Your task to perform on an android device: Search for vegetarian restaurants on Maps Image 0: 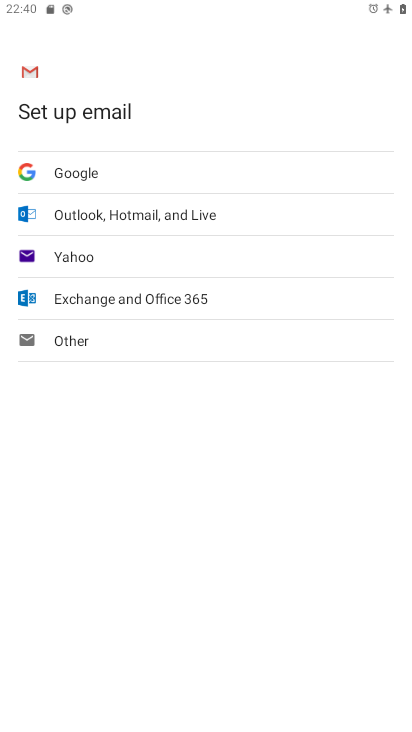
Step 0: press home button
Your task to perform on an android device: Search for vegetarian restaurants on Maps Image 1: 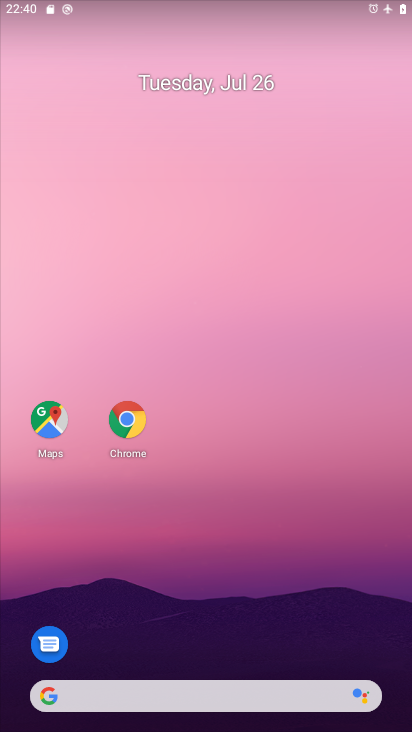
Step 1: click (128, 417)
Your task to perform on an android device: Search for vegetarian restaurants on Maps Image 2: 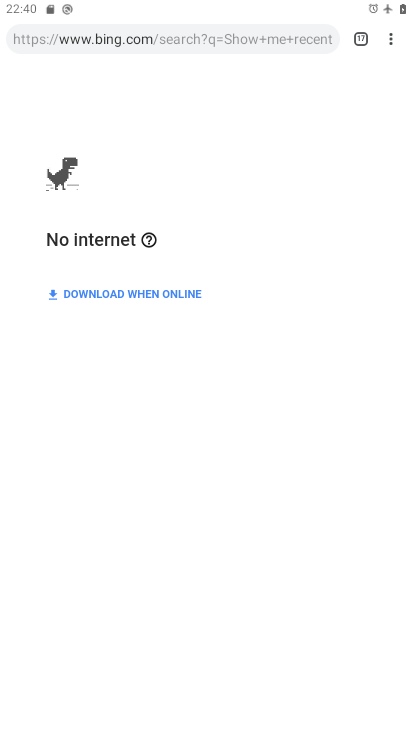
Step 2: press home button
Your task to perform on an android device: Search for vegetarian restaurants on Maps Image 3: 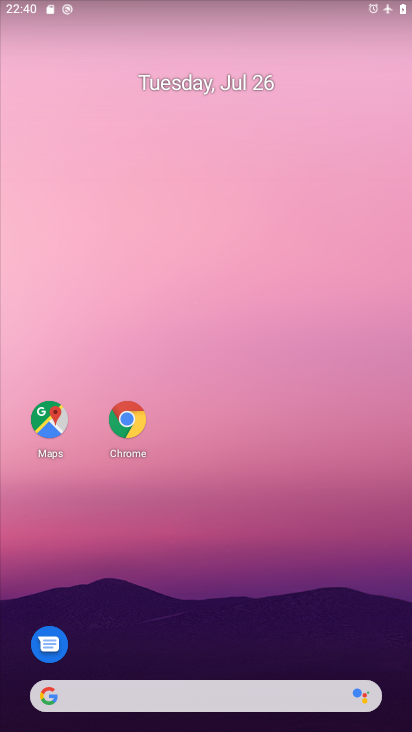
Step 3: click (43, 419)
Your task to perform on an android device: Search for vegetarian restaurants on Maps Image 4: 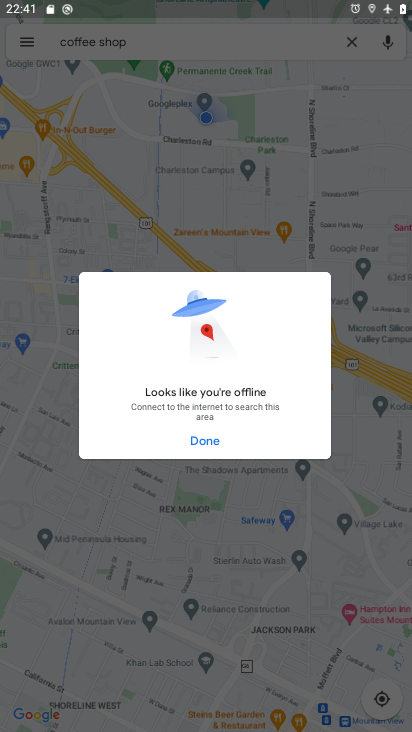
Step 4: click (204, 437)
Your task to perform on an android device: Search for vegetarian restaurants on Maps Image 5: 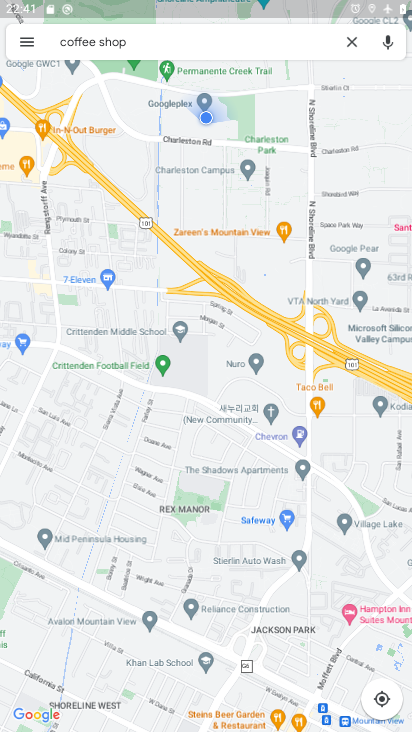
Step 5: click (357, 40)
Your task to perform on an android device: Search for vegetarian restaurants on Maps Image 6: 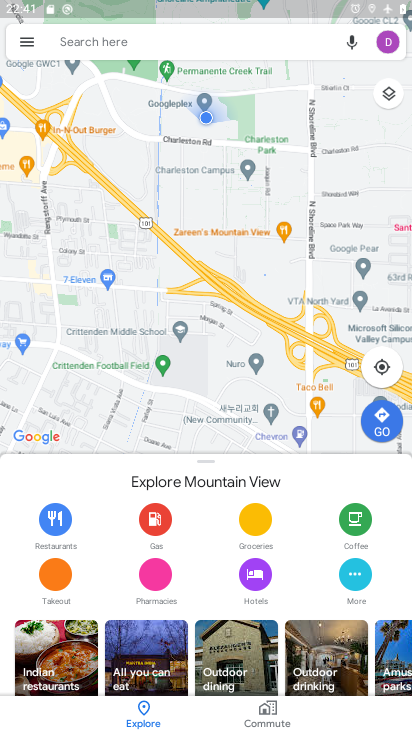
Step 6: click (275, 37)
Your task to perform on an android device: Search for vegetarian restaurants on Maps Image 7: 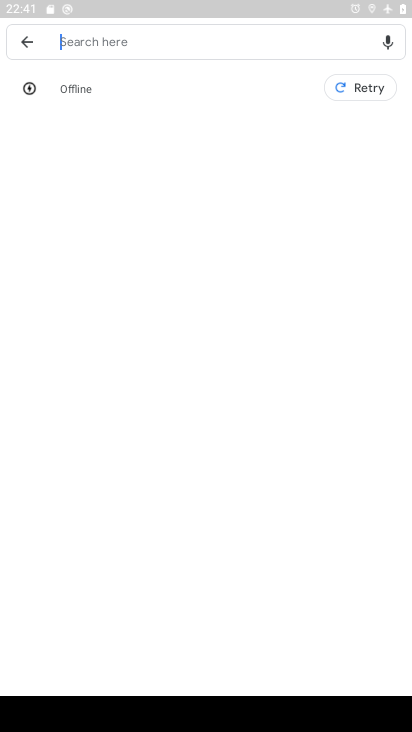
Step 7: click (224, 35)
Your task to perform on an android device: Search for vegetarian restaurants on Maps Image 8: 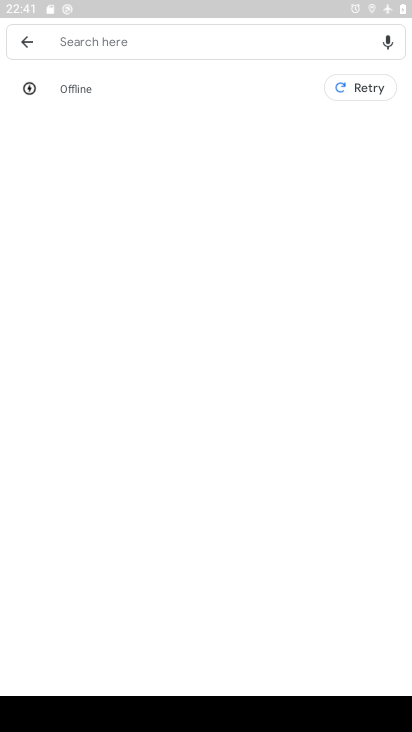
Step 8: type "vegetarian restaurants "
Your task to perform on an android device: Search for vegetarian restaurants on Maps Image 9: 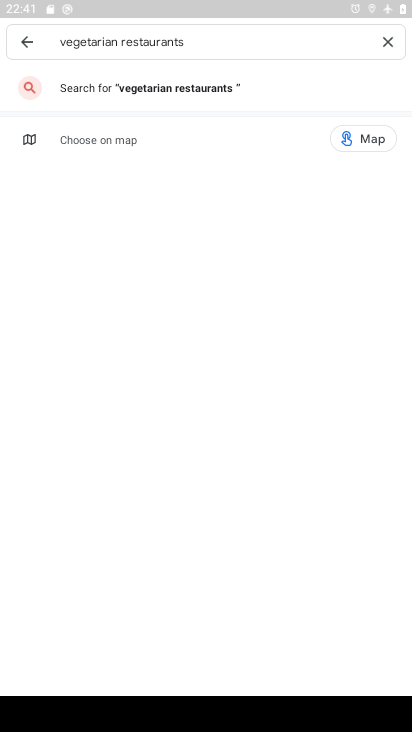
Step 9: click (215, 80)
Your task to perform on an android device: Search for vegetarian restaurants on Maps Image 10: 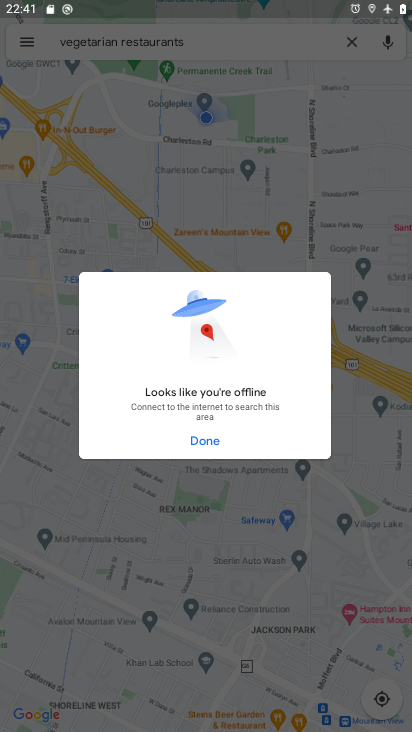
Step 10: task complete